Your task to perform on an android device: turn on notifications settings in the gmail app Image 0: 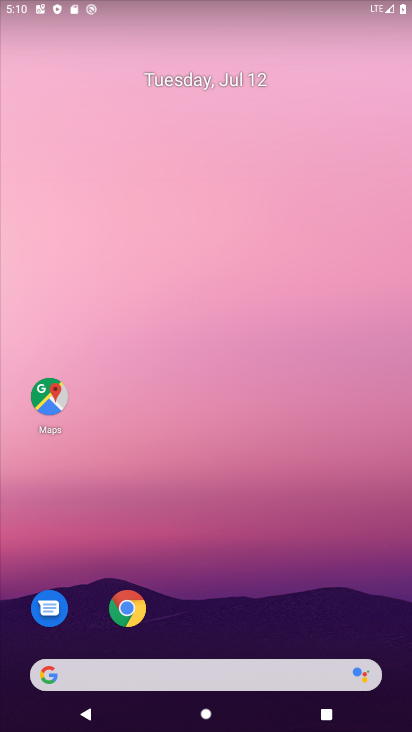
Step 0: drag from (172, 632) to (212, 268)
Your task to perform on an android device: turn on notifications settings in the gmail app Image 1: 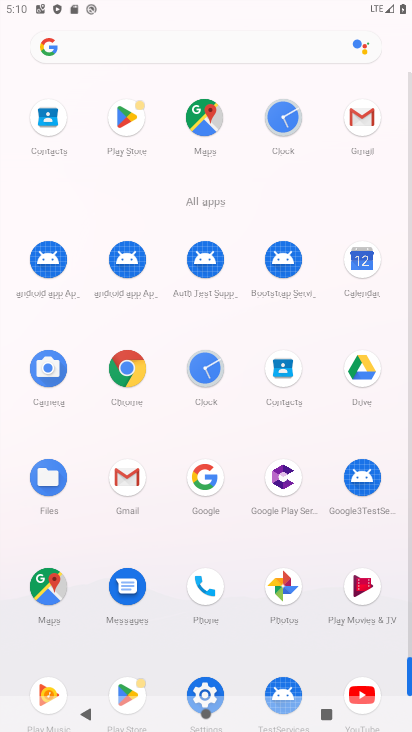
Step 1: click (373, 123)
Your task to perform on an android device: turn on notifications settings in the gmail app Image 2: 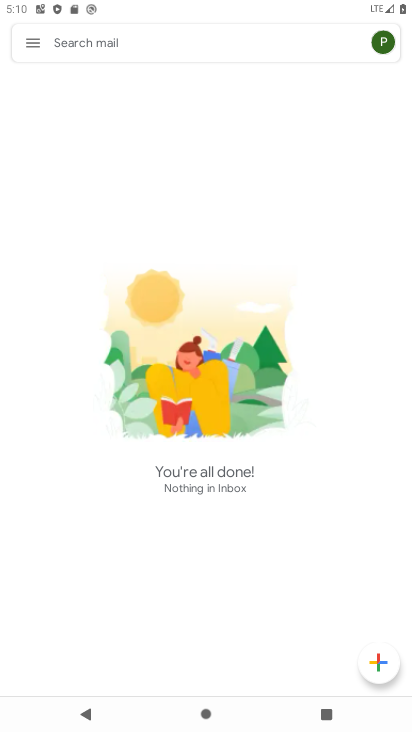
Step 2: click (21, 38)
Your task to perform on an android device: turn on notifications settings in the gmail app Image 3: 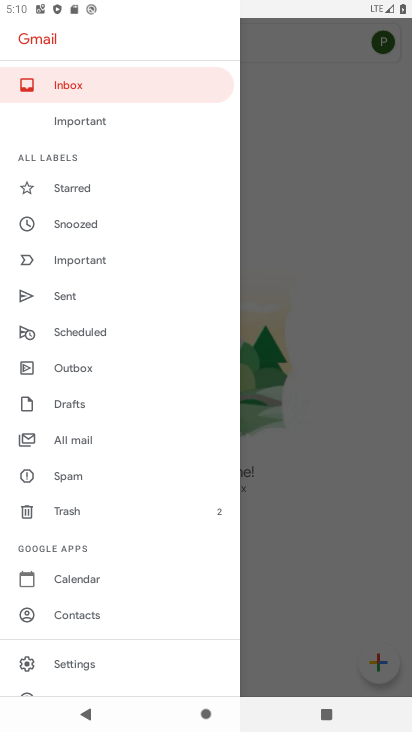
Step 3: click (95, 671)
Your task to perform on an android device: turn on notifications settings in the gmail app Image 4: 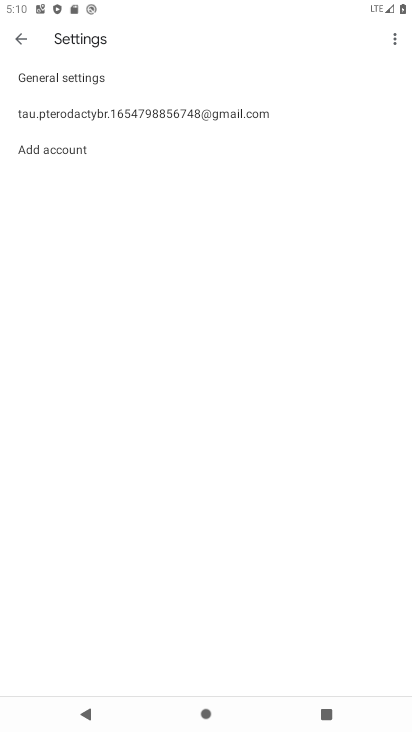
Step 4: click (283, 112)
Your task to perform on an android device: turn on notifications settings in the gmail app Image 5: 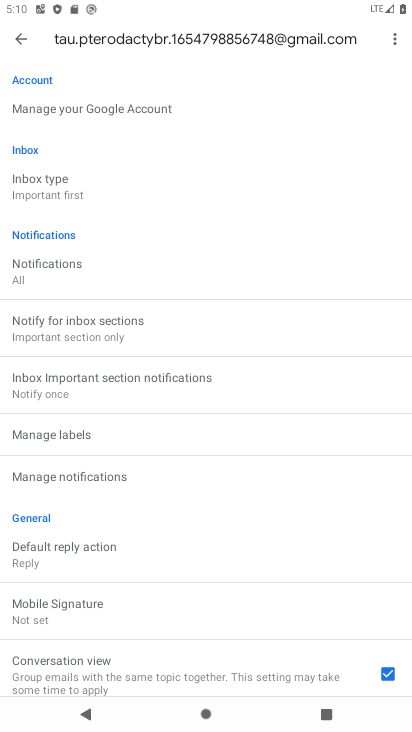
Step 5: click (49, 285)
Your task to perform on an android device: turn on notifications settings in the gmail app Image 6: 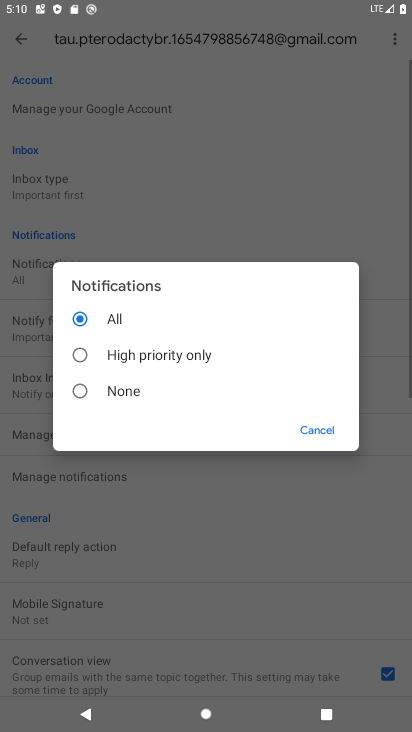
Step 6: task complete